Your task to perform on an android device: Open location settings Image 0: 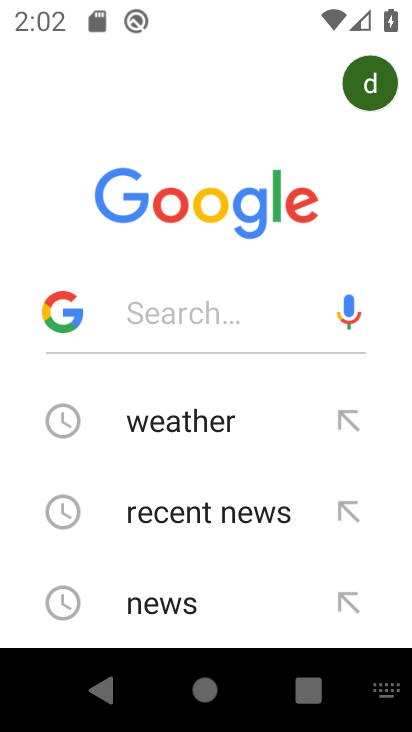
Step 0: press back button
Your task to perform on an android device: Open location settings Image 1: 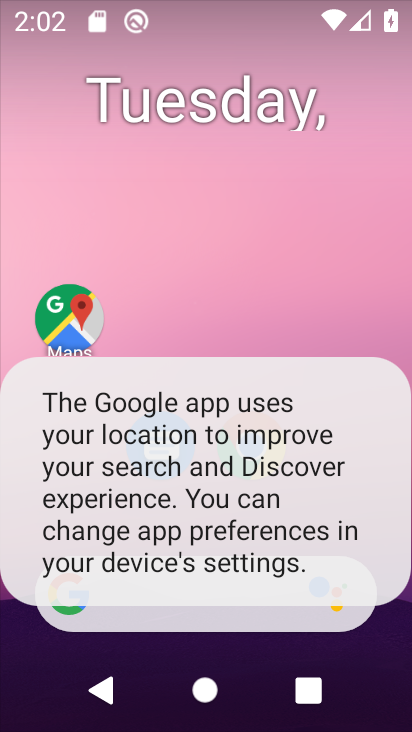
Step 1: press home button
Your task to perform on an android device: Open location settings Image 2: 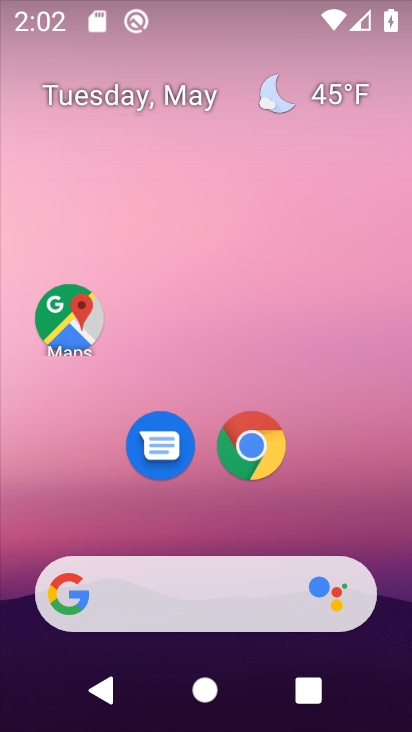
Step 2: drag from (196, 497) to (342, 4)
Your task to perform on an android device: Open location settings Image 3: 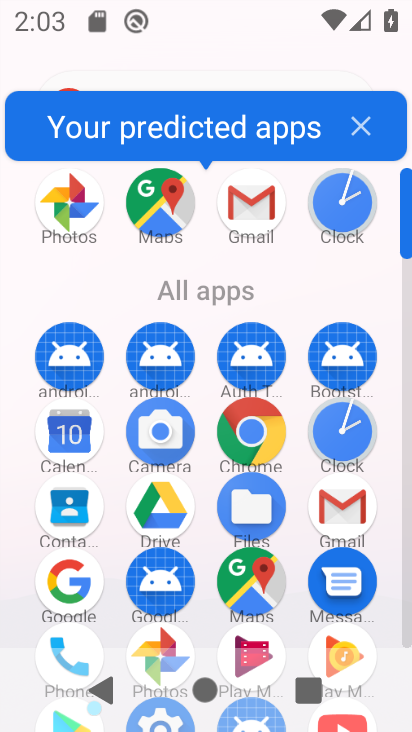
Step 3: drag from (173, 597) to (347, 117)
Your task to perform on an android device: Open location settings Image 4: 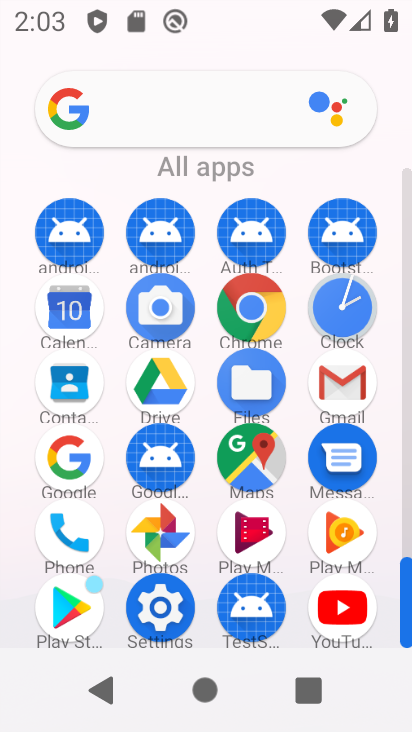
Step 4: click (166, 607)
Your task to perform on an android device: Open location settings Image 5: 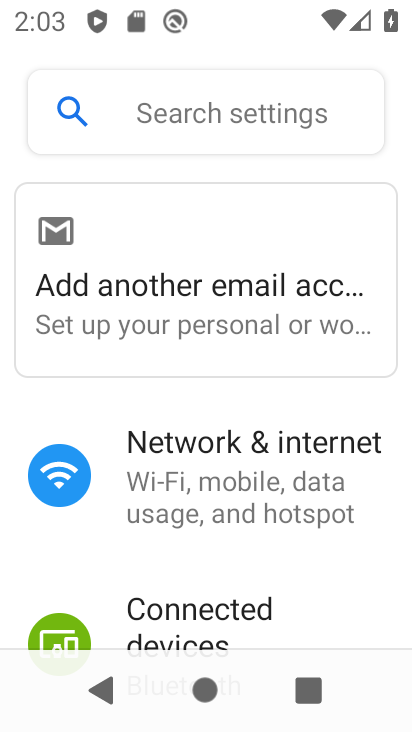
Step 5: drag from (251, 487) to (348, 86)
Your task to perform on an android device: Open location settings Image 6: 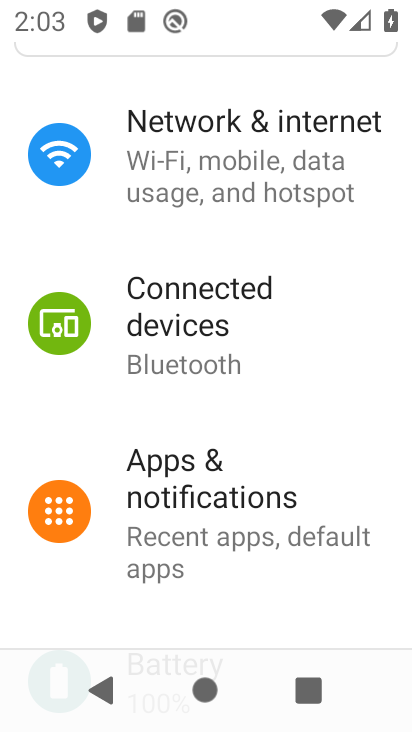
Step 6: drag from (222, 516) to (313, 90)
Your task to perform on an android device: Open location settings Image 7: 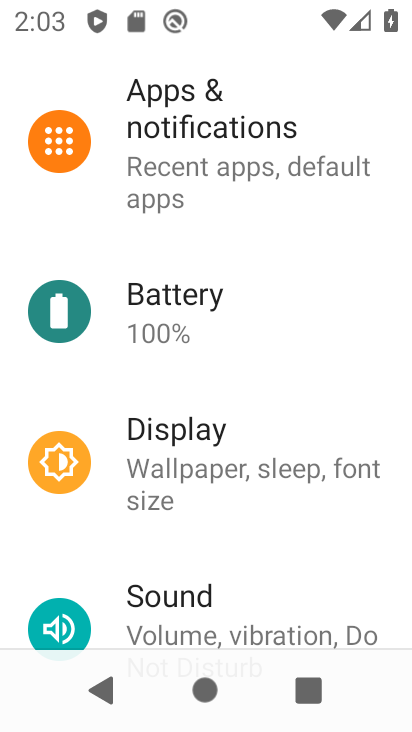
Step 7: drag from (257, 521) to (312, 82)
Your task to perform on an android device: Open location settings Image 8: 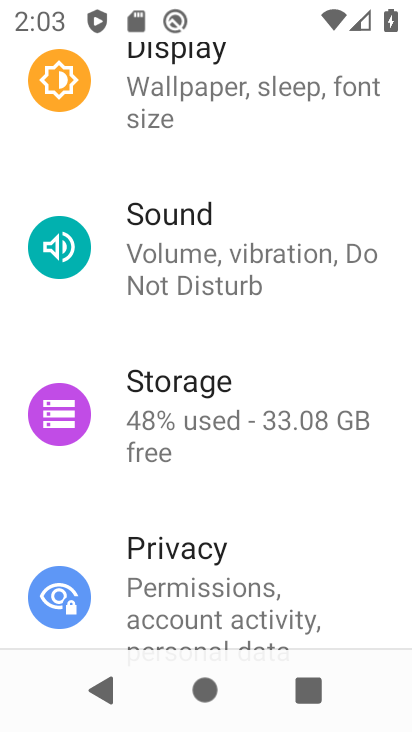
Step 8: drag from (205, 579) to (328, 41)
Your task to perform on an android device: Open location settings Image 9: 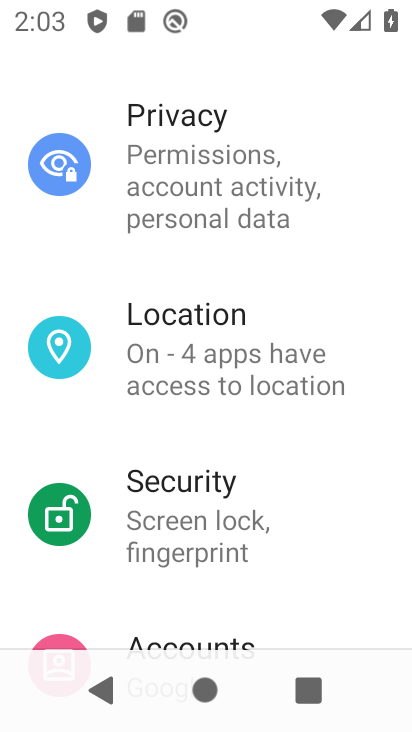
Step 9: click (201, 384)
Your task to perform on an android device: Open location settings Image 10: 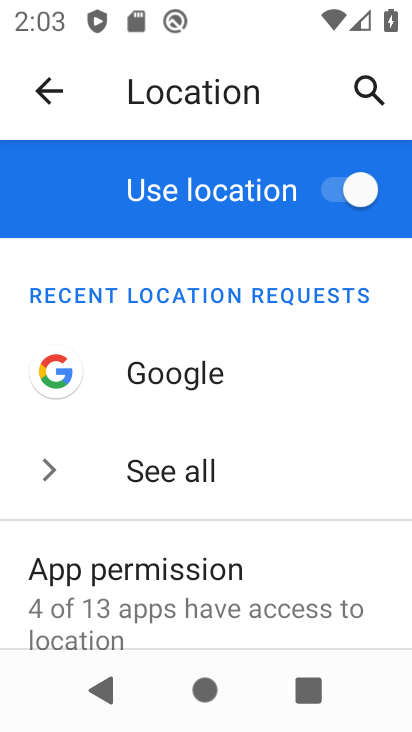
Step 10: task complete